Your task to perform on an android device: Open Google Image 0: 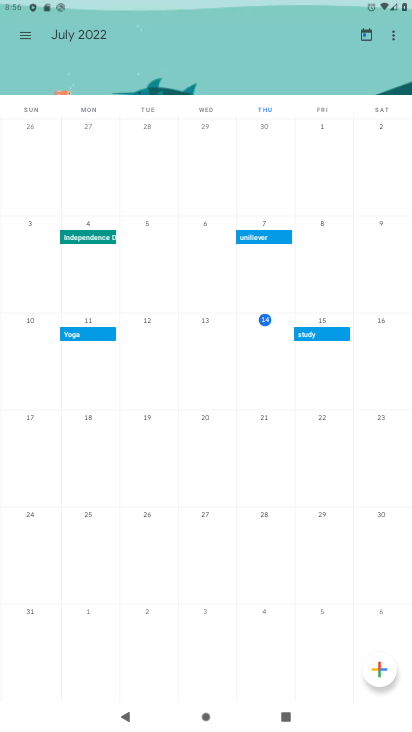
Step 0: press home button
Your task to perform on an android device: Open Google Image 1: 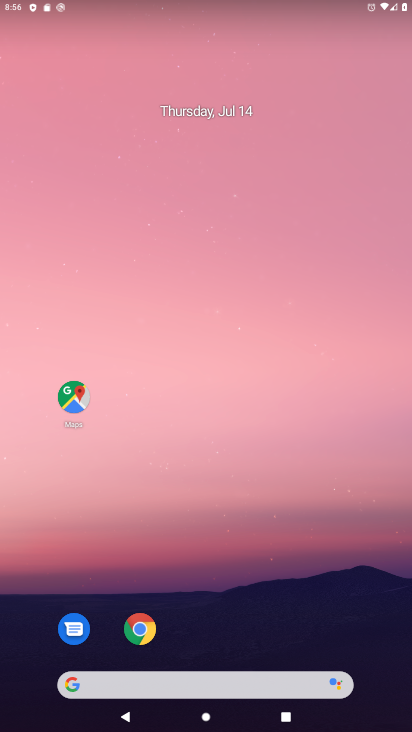
Step 1: drag from (237, 641) to (269, 95)
Your task to perform on an android device: Open Google Image 2: 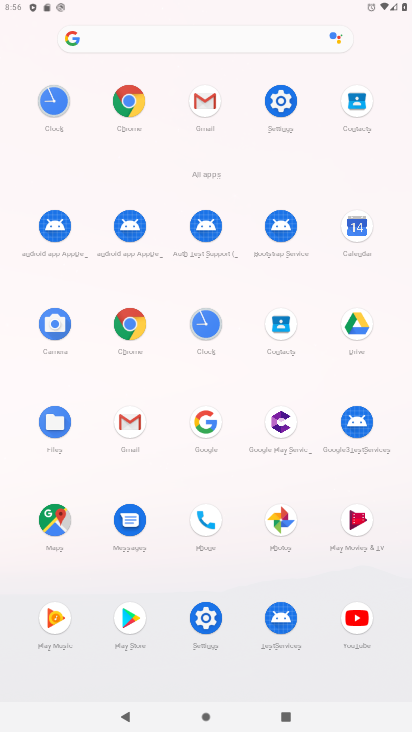
Step 2: click (210, 419)
Your task to perform on an android device: Open Google Image 3: 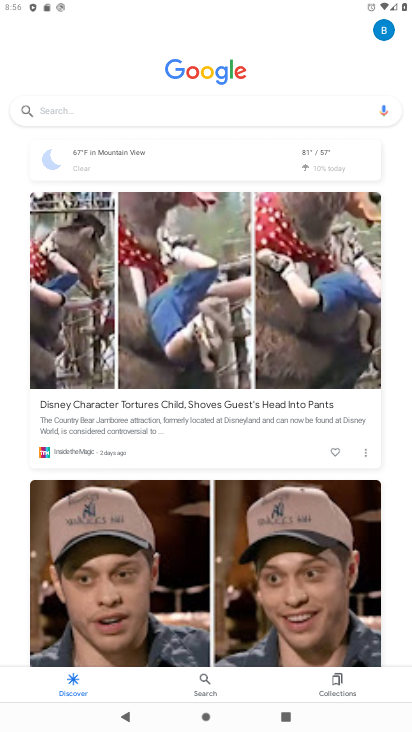
Step 3: task complete